Your task to perform on an android device: turn off translation in the chrome app Image 0: 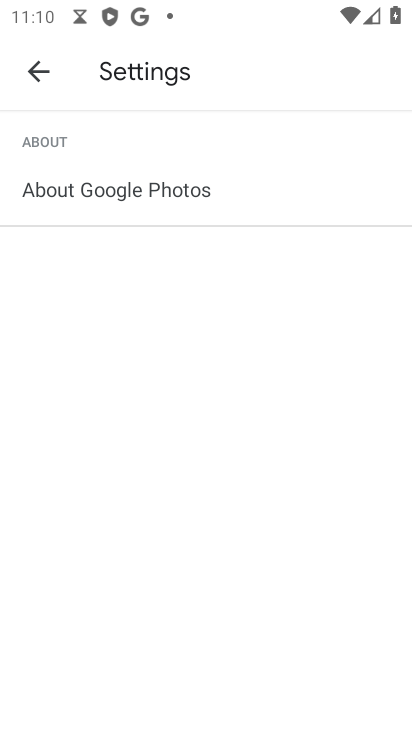
Step 0: press home button
Your task to perform on an android device: turn off translation in the chrome app Image 1: 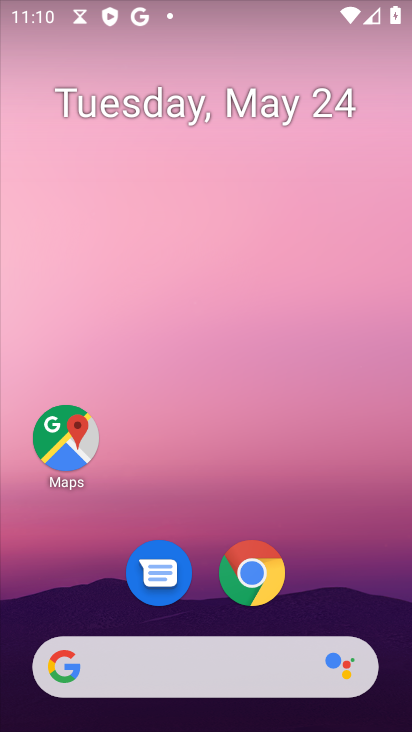
Step 1: click (244, 581)
Your task to perform on an android device: turn off translation in the chrome app Image 2: 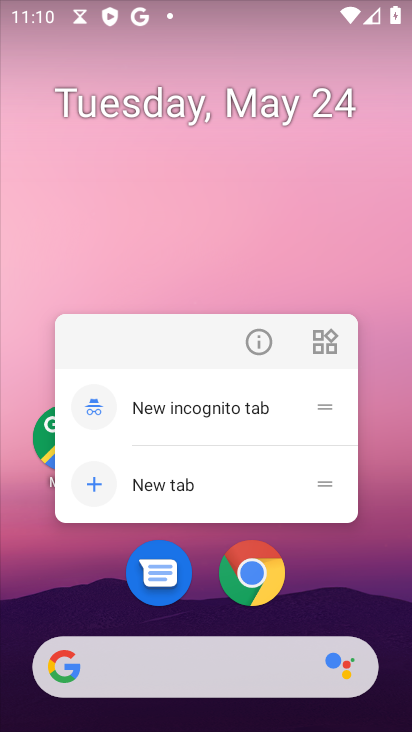
Step 2: click (253, 579)
Your task to perform on an android device: turn off translation in the chrome app Image 3: 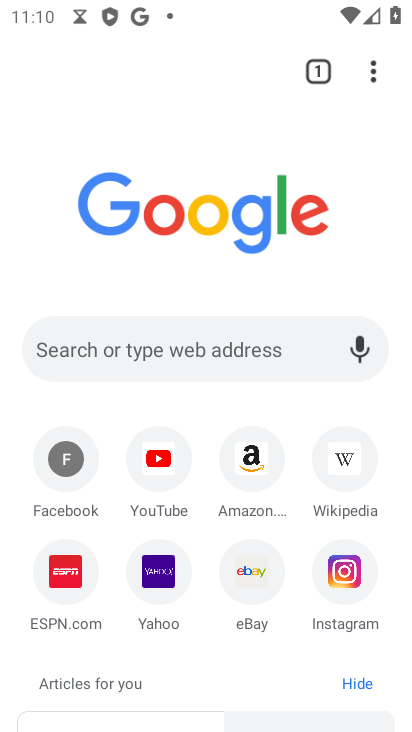
Step 3: drag from (391, 76) to (155, 600)
Your task to perform on an android device: turn off translation in the chrome app Image 4: 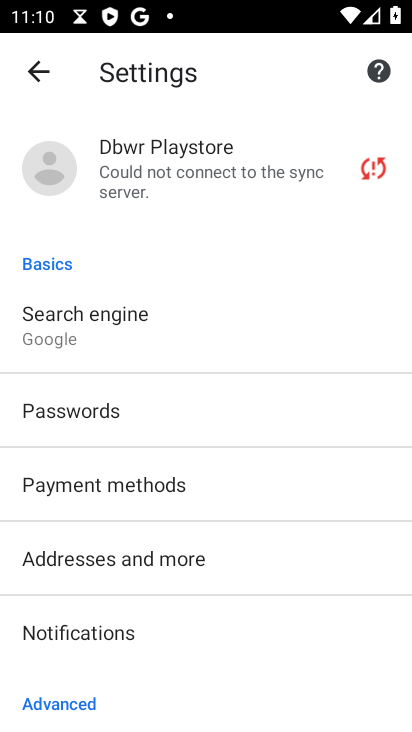
Step 4: drag from (82, 643) to (216, 242)
Your task to perform on an android device: turn off translation in the chrome app Image 5: 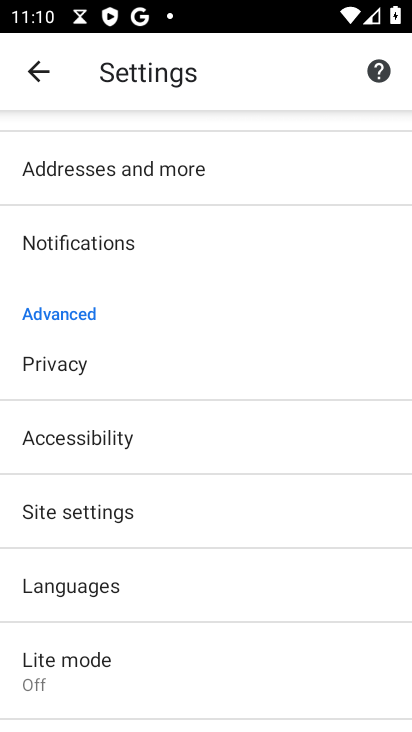
Step 5: click (124, 586)
Your task to perform on an android device: turn off translation in the chrome app Image 6: 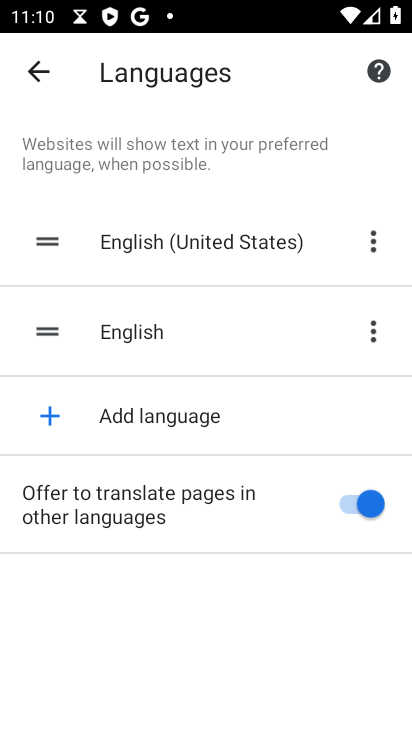
Step 6: click (346, 509)
Your task to perform on an android device: turn off translation in the chrome app Image 7: 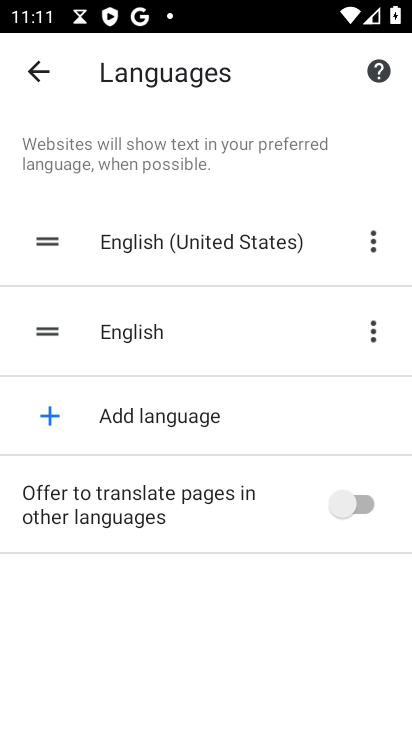
Step 7: task complete